Your task to perform on an android device: turn off smart reply in the gmail app Image 0: 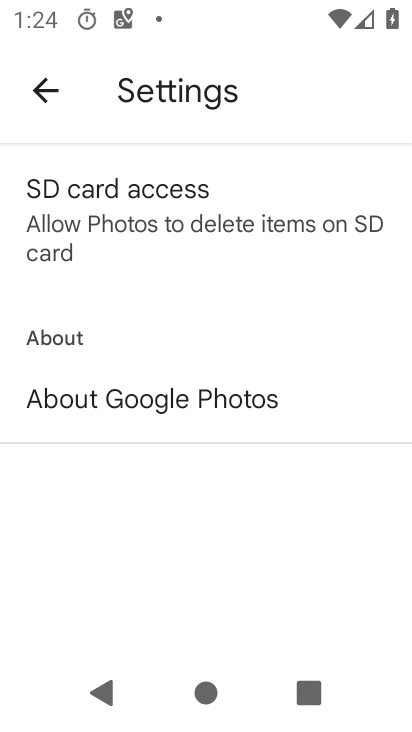
Step 0: press home button
Your task to perform on an android device: turn off smart reply in the gmail app Image 1: 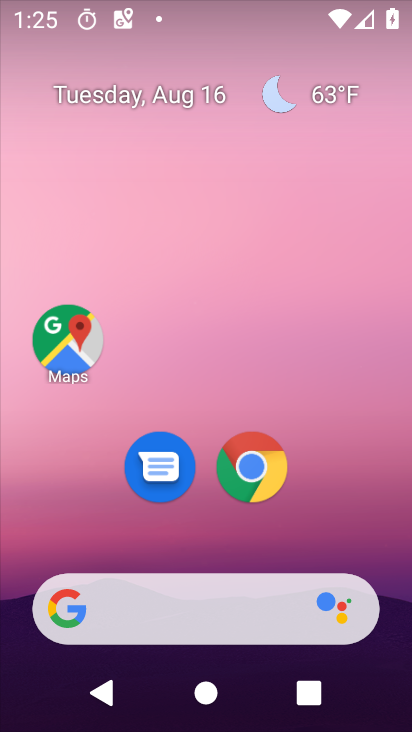
Step 1: drag from (370, 534) to (375, 120)
Your task to perform on an android device: turn off smart reply in the gmail app Image 2: 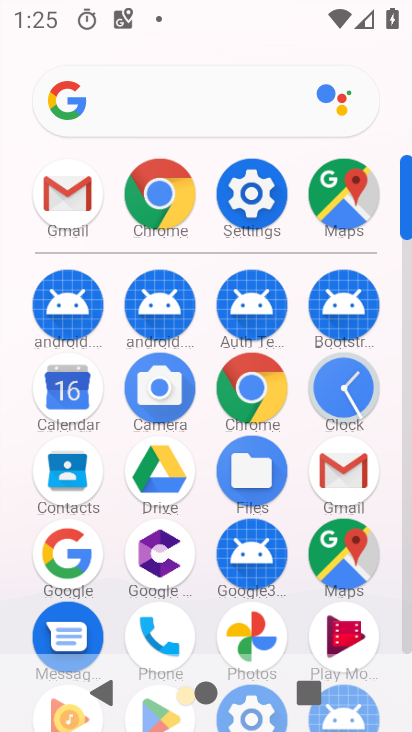
Step 2: click (340, 475)
Your task to perform on an android device: turn off smart reply in the gmail app Image 3: 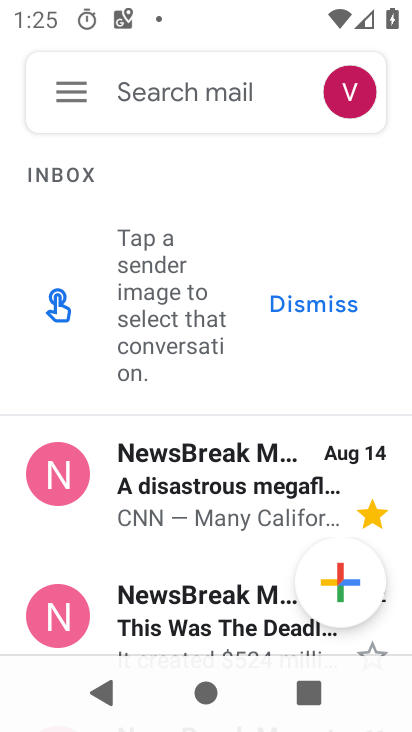
Step 3: click (69, 70)
Your task to perform on an android device: turn off smart reply in the gmail app Image 4: 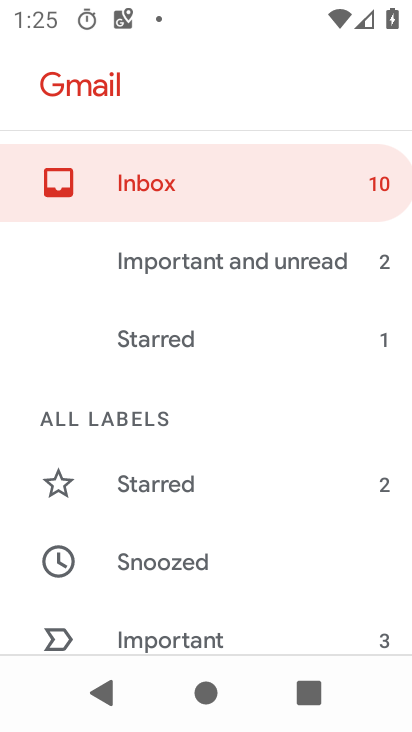
Step 4: drag from (231, 509) to (255, 374)
Your task to perform on an android device: turn off smart reply in the gmail app Image 5: 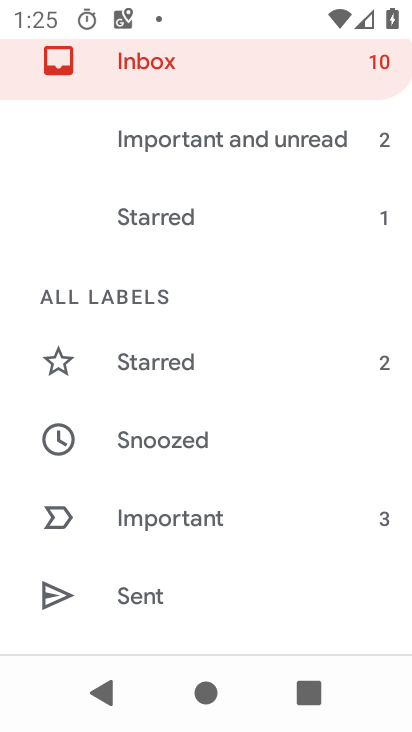
Step 5: drag from (280, 547) to (284, 412)
Your task to perform on an android device: turn off smart reply in the gmail app Image 6: 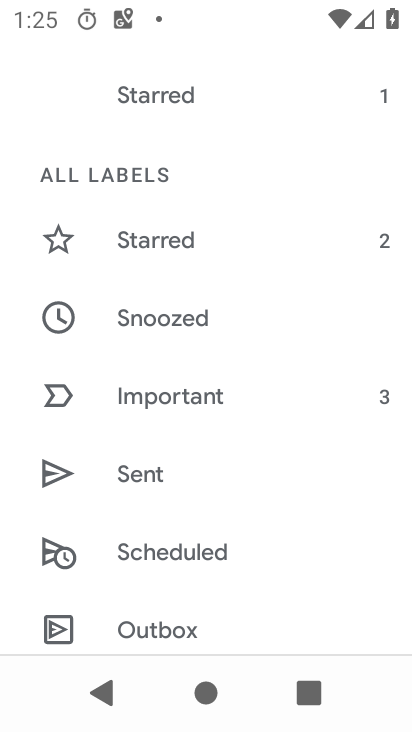
Step 6: drag from (275, 620) to (280, 445)
Your task to perform on an android device: turn off smart reply in the gmail app Image 7: 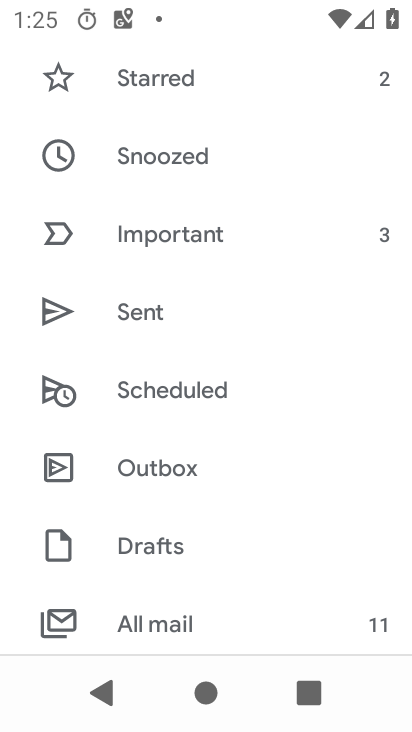
Step 7: drag from (267, 591) to (262, 411)
Your task to perform on an android device: turn off smart reply in the gmail app Image 8: 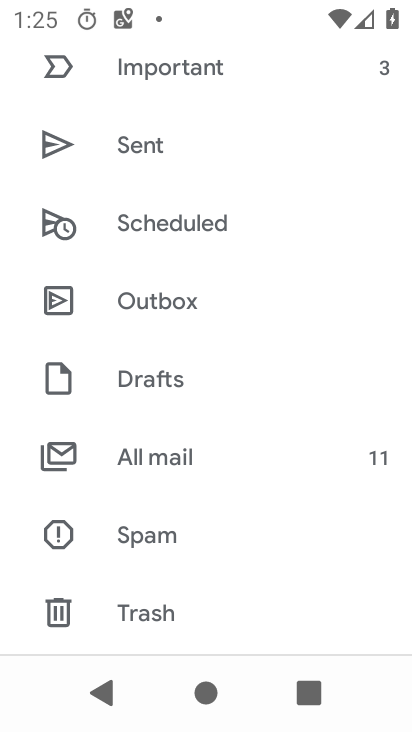
Step 8: drag from (273, 597) to (266, 409)
Your task to perform on an android device: turn off smart reply in the gmail app Image 9: 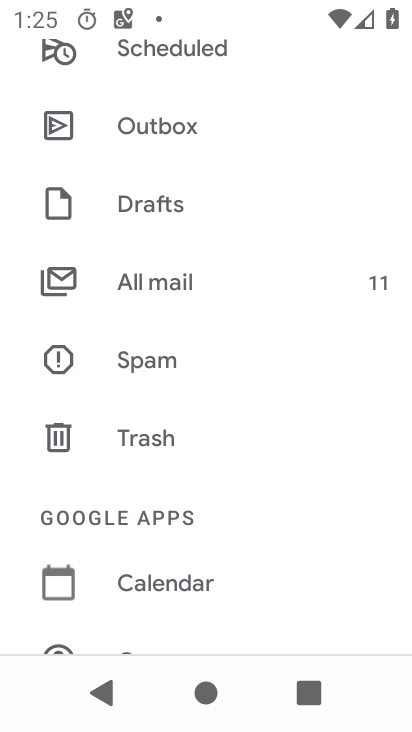
Step 9: drag from (276, 598) to (299, 393)
Your task to perform on an android device: turn off smart reply in the gmail app Image 10: 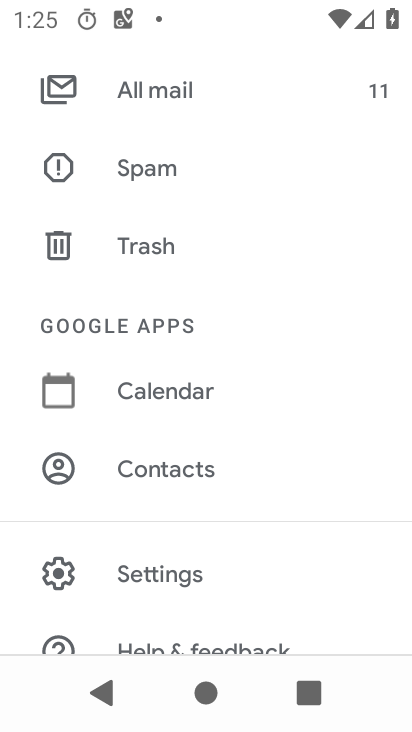
Step 10: drag from (288, 619) to (284, 480)
Your task to perform on an android device: turn off smart reply in the gmail app Image 11: 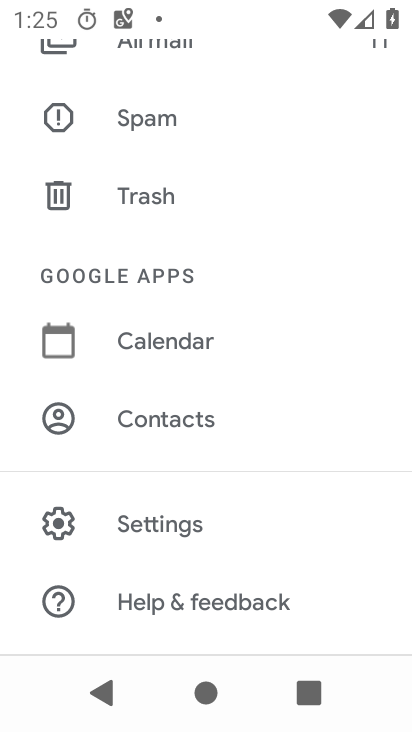
Step 11: click (225, 528)
Your task to perform on an android device: turn off smart reply in the gmail app Image 12: 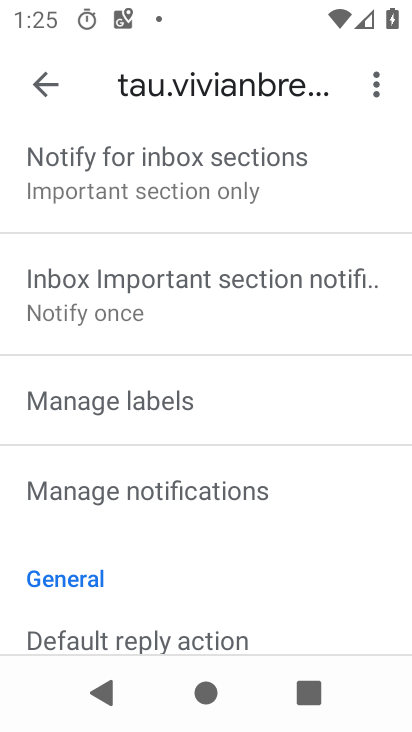
Step 12: drag from (343, 579) to (329, 471)
Your task to perform on an android device: turn off smart reply in the gmail app Image 13: 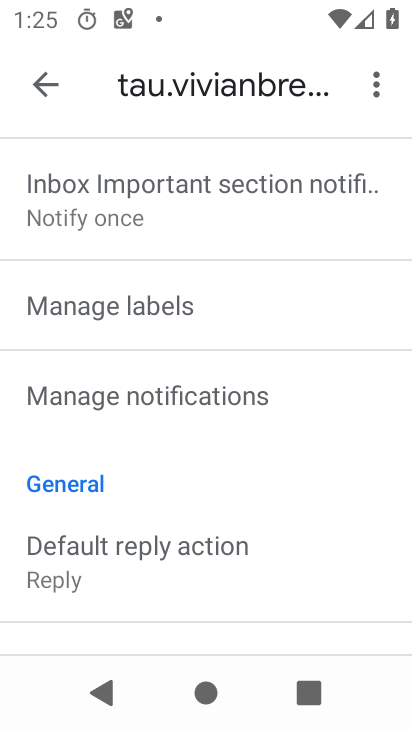
Step 13: drag from (341, 588) to (357, 462)
Your task to perform on an android device: turn off smart reply in the gmail app Image 14: 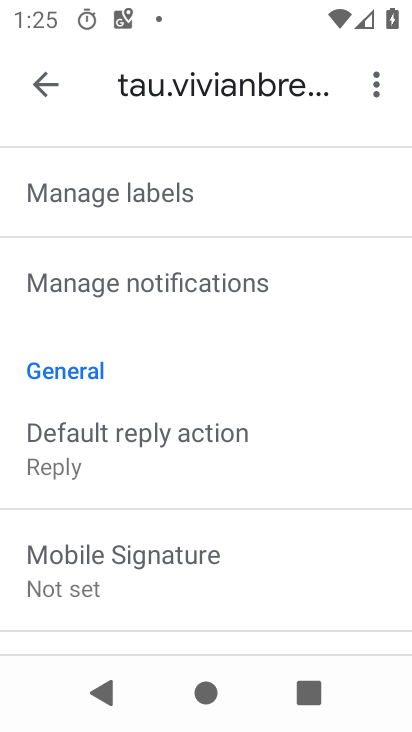
Step 14: drag from (349, 577) to (347, 453)
Your task to perform on an android device: turn off smart reply in the gmail app Image 15: 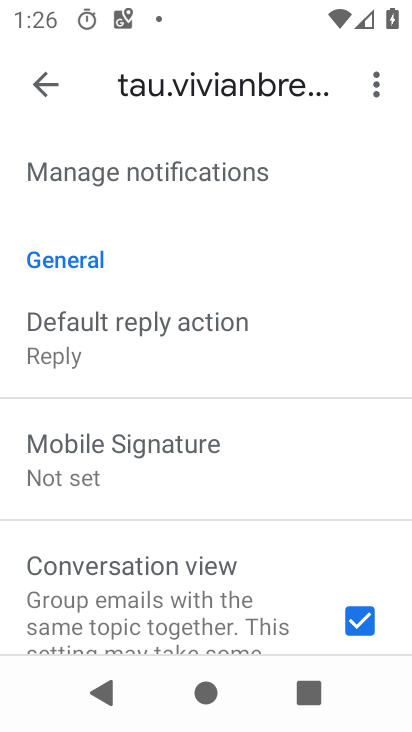
Step 15: drag from (312, 587) to (310, 465)
Your task to perform on an android device: turn off smart reply in the gmail app Image 16: 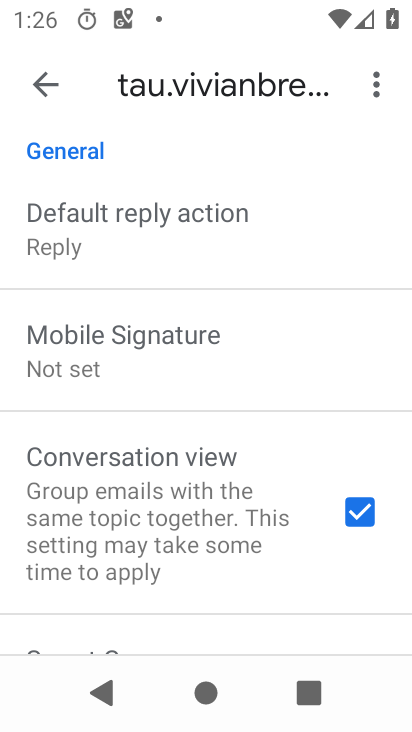
Step 16: drag from (288, 617) to (296, 462)
Your task to perform on an android device: turn off smart reply in the gmail app Image 17: 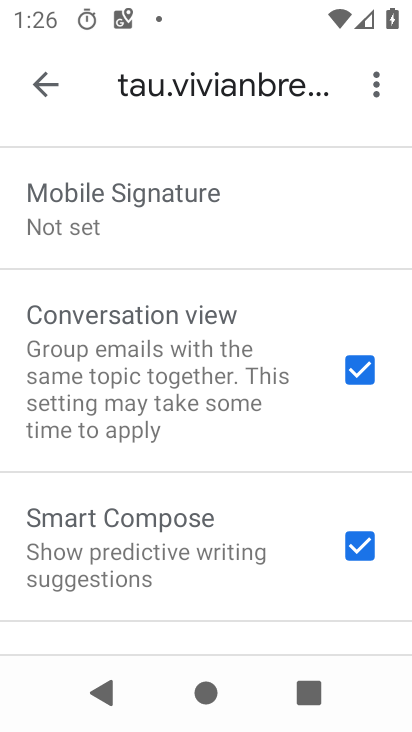
Step 17: drag from (288, 605) to (286, 453)
Your task to perform on an android device: turn off smart reply in the gmail app Image 18: 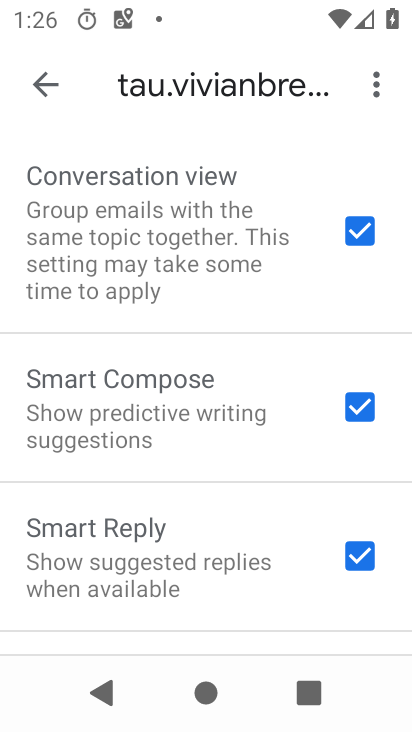
Step 18: drag from (276, 607) to (281, 472)
Your task to perform on an android device: turn off smart reply in the gmail app Image 19: 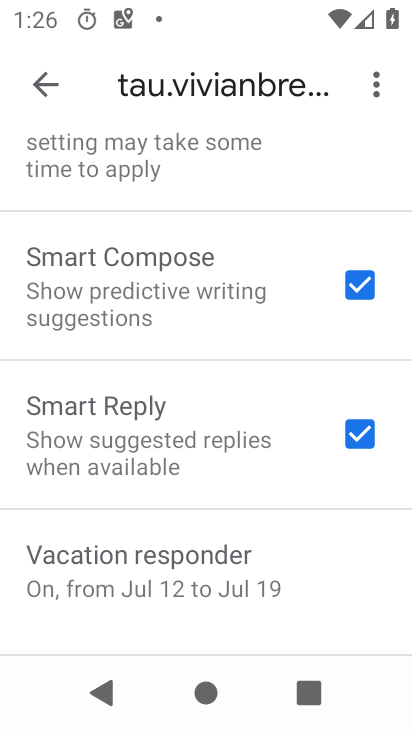
Step 19: drag from (281, 628) to (280, 488)
Your task to perform on an android device: turn off smart reply in the gmail app Image 20: 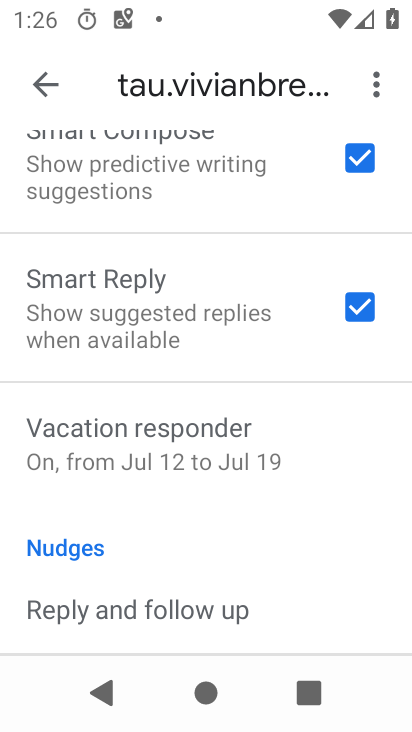
Step 20: drag from (289, 623) to (293, 432)
Your task to perform on an android device: turn off smart reply in the gmail app Image 21: 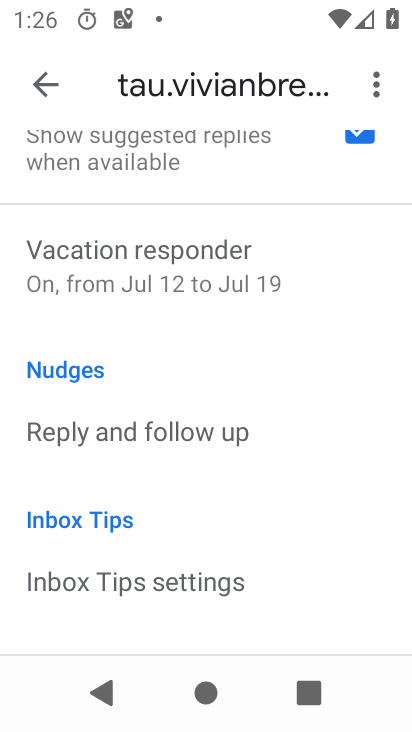
Step 21: drag from (277, 605) to (283, 505)
Your task to perform on an android device: turn off smart reply in the gmail app Image 22: 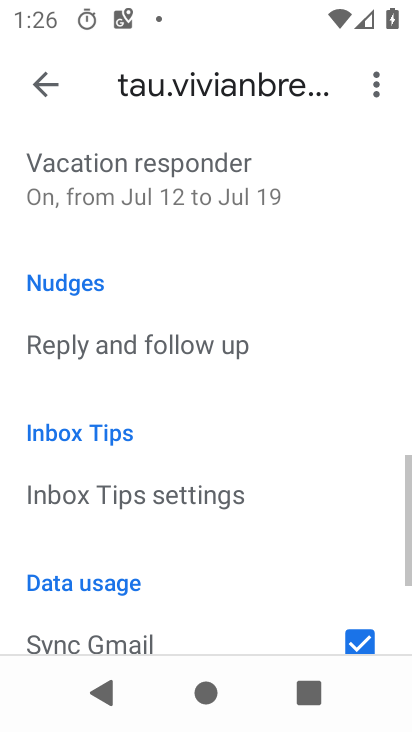
Step 22: drag from (317, 314) to (337, 485)
Your task to perform on an android device: turn off smart reply in the gmail app Image 23: 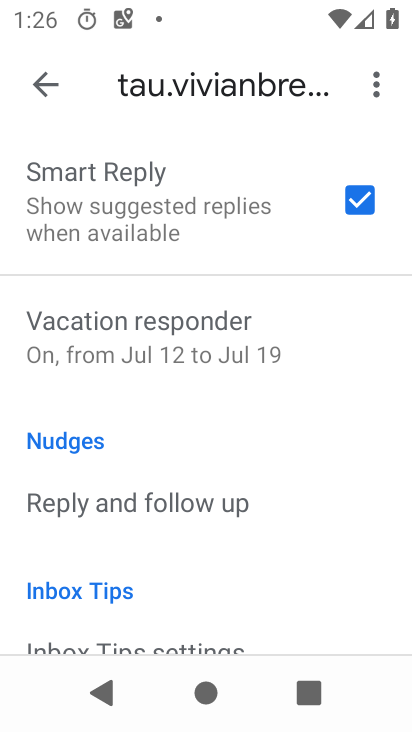
Step 23: drag from (298, 346) to (307, 394)
Your task to perform on an android device: turn off smart reply in the gmail app Image 24: 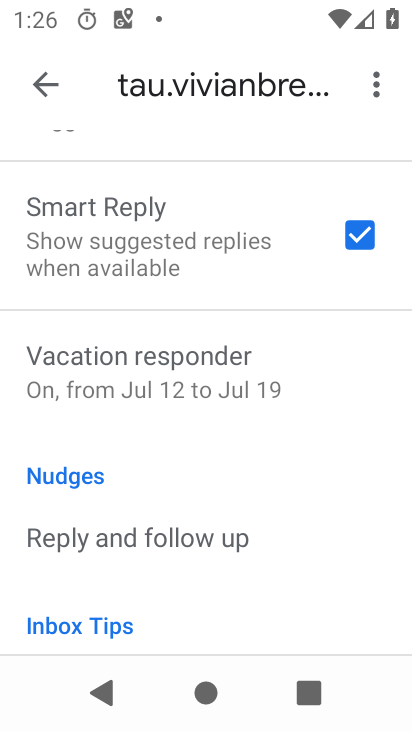
Step 24: click (361, 244)
Your task to perform on an android device: turn off smart reply in the gmail app Image 25: 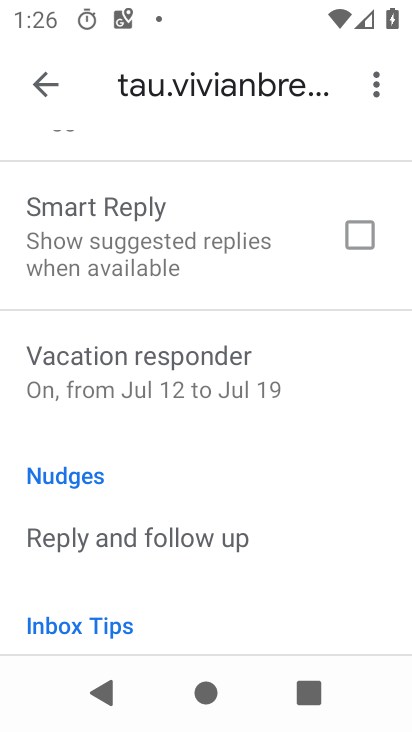
Step 25: task complete